Your task to perform on an android device: turn off wifi Image 0: 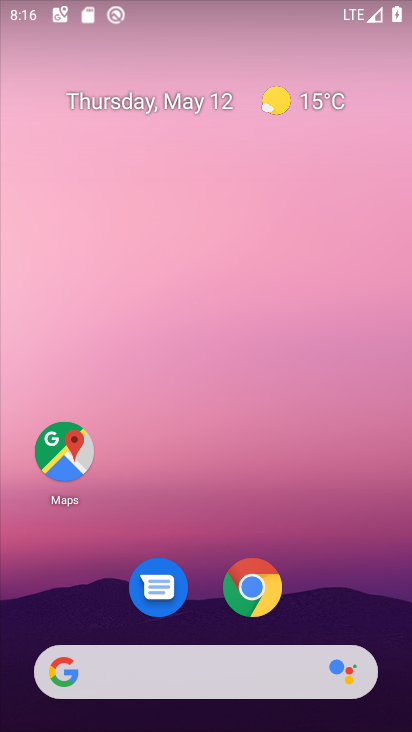
Step 0: drag from (206, 3) to (216, 498)
Your task to perform on an android device: turn off wifi Image 1: 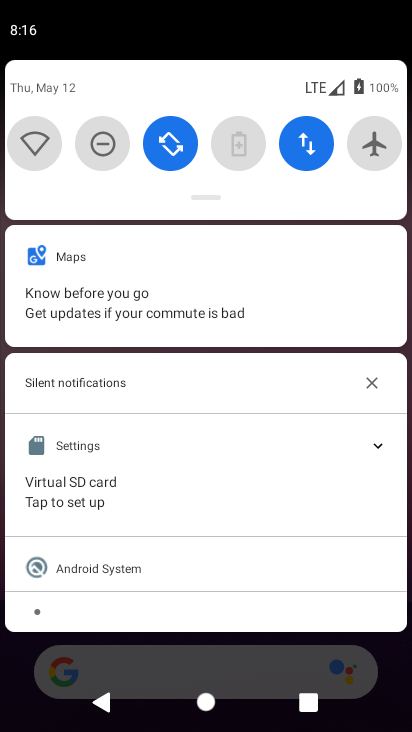
Step 1: task complete